Your task to perform on an android device: turn off improve location accuracy Image 0: 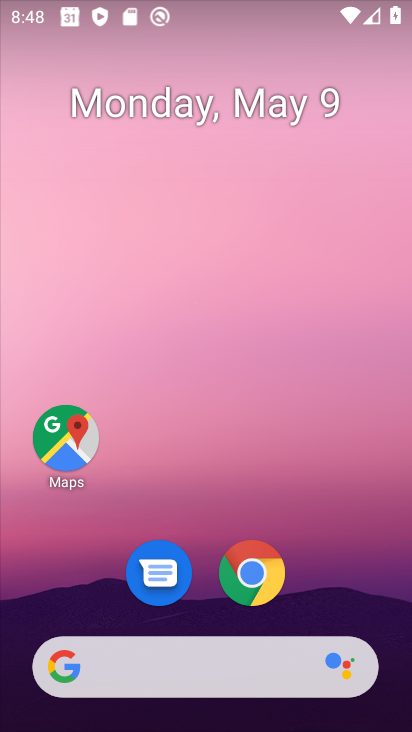
Step 0: drag from (351, 601) to (309, 73)
Your task to perform on an android device: turn off improve location accuracy Image 1: 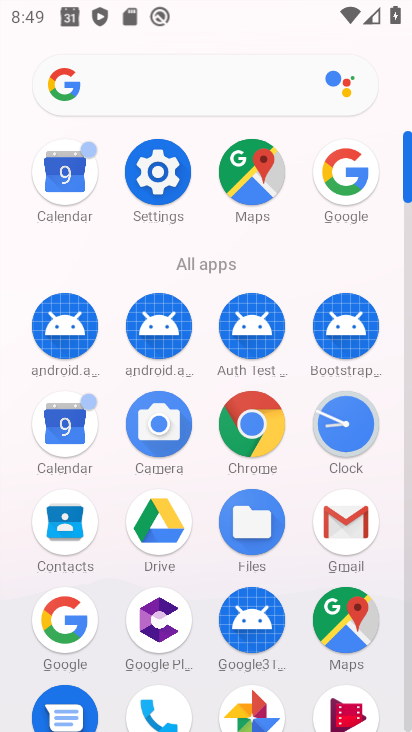
Step 1: click (156, 170)
Your task to perform on an android device: turn off improve location accuracy Image 2: 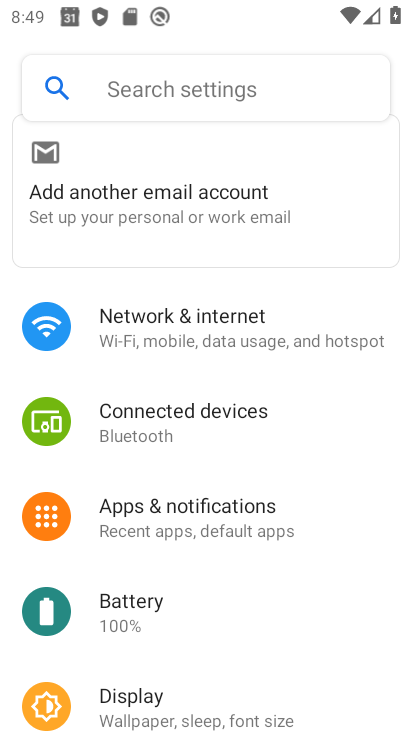
Step 2: drag from (226, 591) to (199, 334)
Your task to perform on an android device: turn off improve location accuracy Image 3: 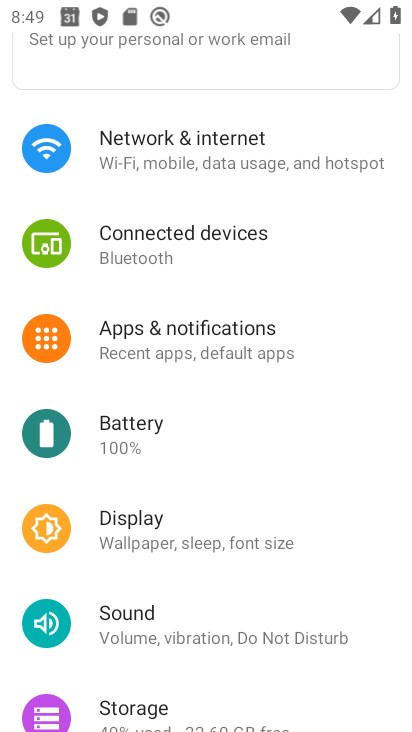
Step 3: drag from (222, 639) to (169, 430)
Your task to perform on an android device: turn off improve location accuracy Image 4: 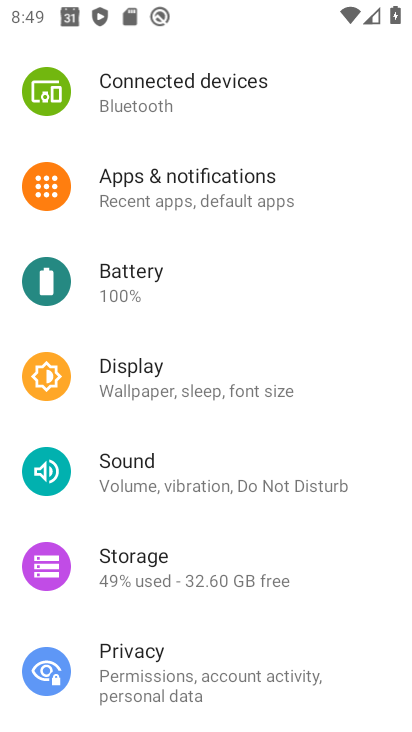
Step 4: drag from (190, 661) to (154, 500)
Your task to perform on an android device: turn off improve location accuracy Image 5: 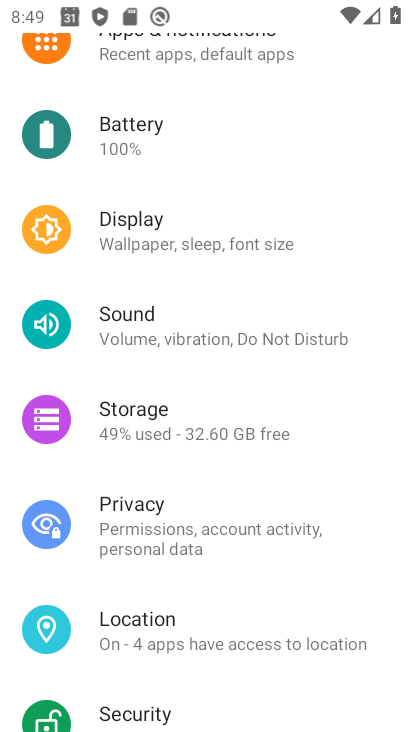
Step 5: click (171, 636)
Your task to perform on an android device: turn off improve location accuracy Image 6: 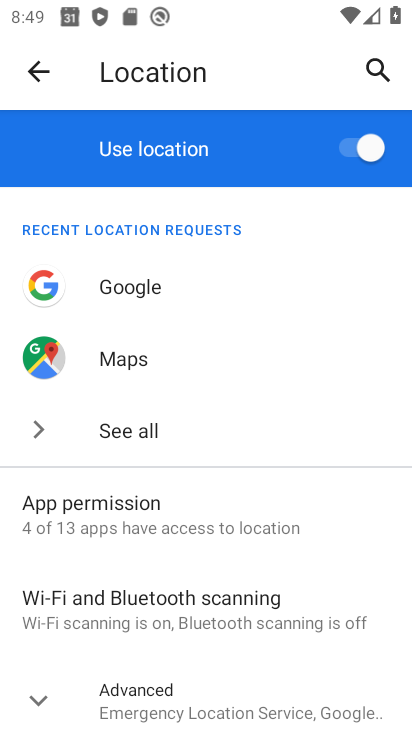
Step 6: click (164, 687)
Your task to perform on an android device: turn off improve location accuracy Image 7: 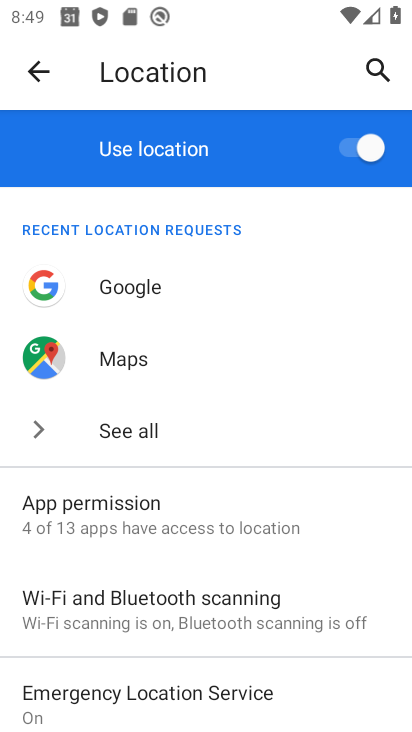
Step 7: drag from (164, 687) to (138, 439)
Your task to perform on an android device: turn off improve location accuracy Image 8: 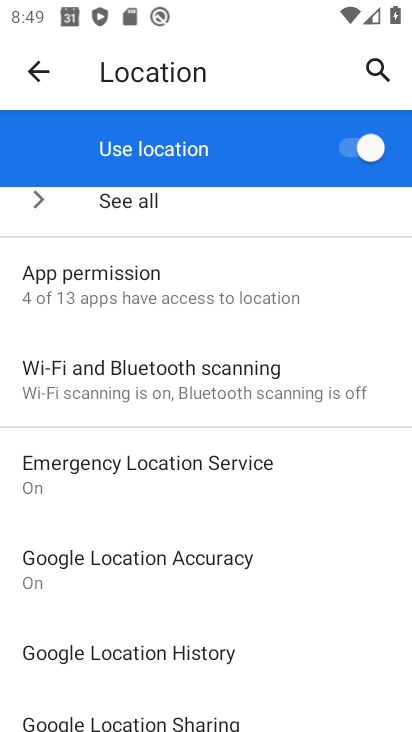
Step 8: click (201, 557)
Your task to perform on an android device: turn off improve location accuracy Image 9: 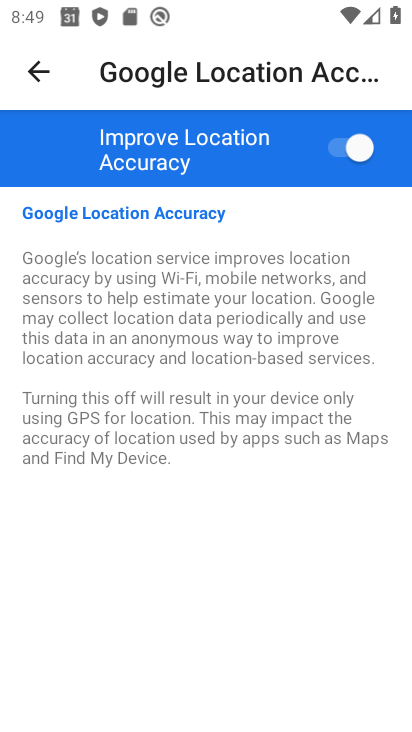
Step 9: click (329, 157)
Your task to perform on an android device: turn off improve location accuracy Image 10: 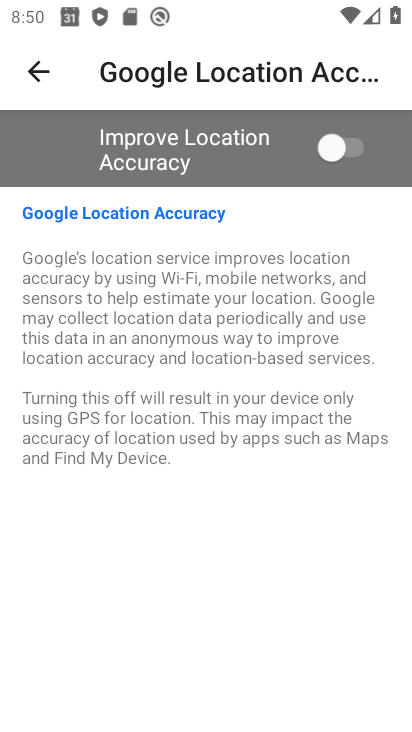
Step 10: task complete